Your task to perform on an android device: change the clock display to digital Image 0: 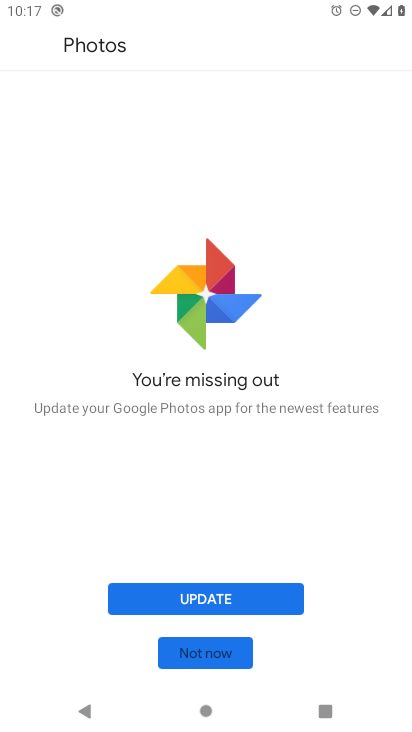
Step 0: press home button
Your task to perform on an android device: change the clock display to digital Image 1: 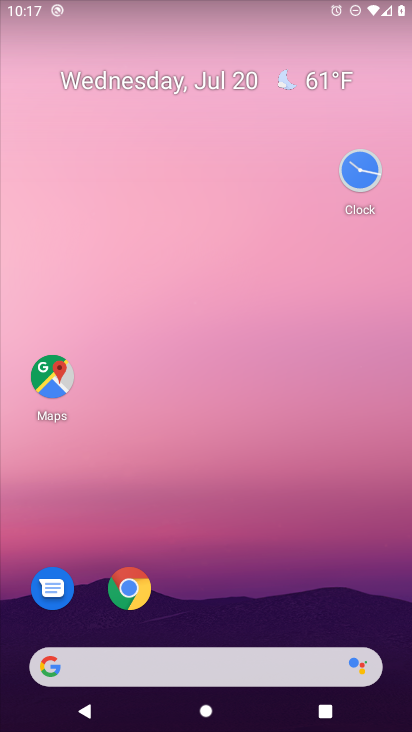
Step 1: drag from (34, 685) to (188, 154)
Your task to perform on an android device: change the clock display to digital Image 2: 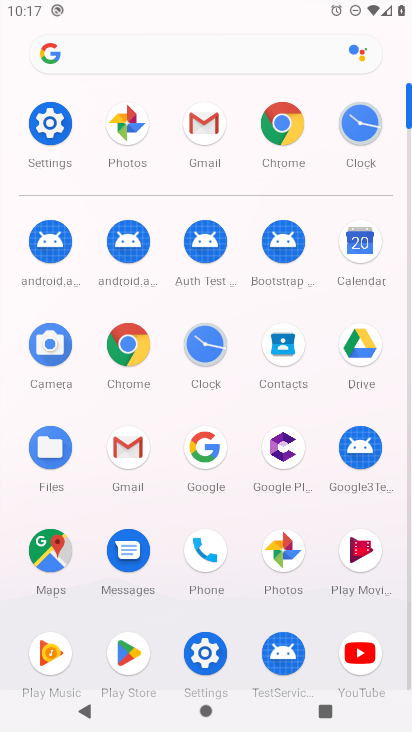
Step 2: click (369, 129)
Your task to perform on an android device: change the clock display to digital Image 3: 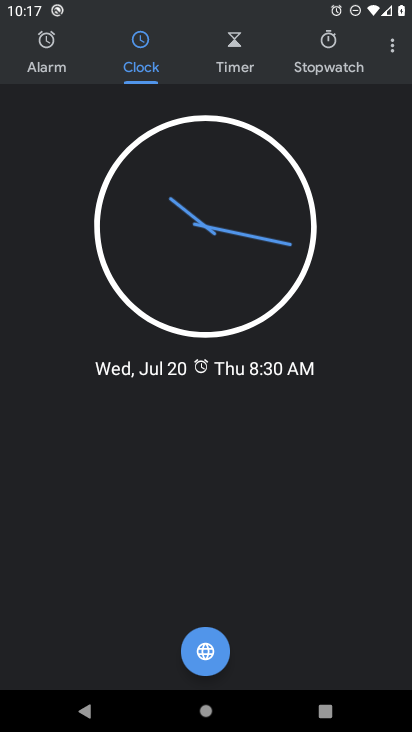
Step 3: click (389, 50)
Your task to perform on an android device: change the clock display to digital Image 4: 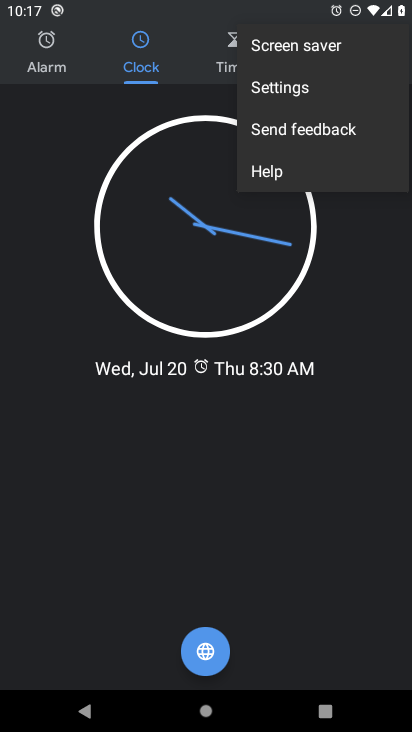
Step 4: click (251, 91)
Your task to perform on an android device: change the clock display to digital Image 5: 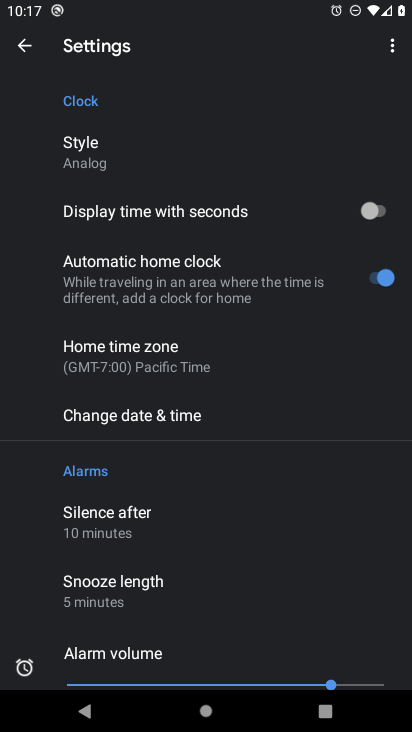
Step 5: click (97, 156)
Your task to perform on an android device: change the clock display to digital Image 6: 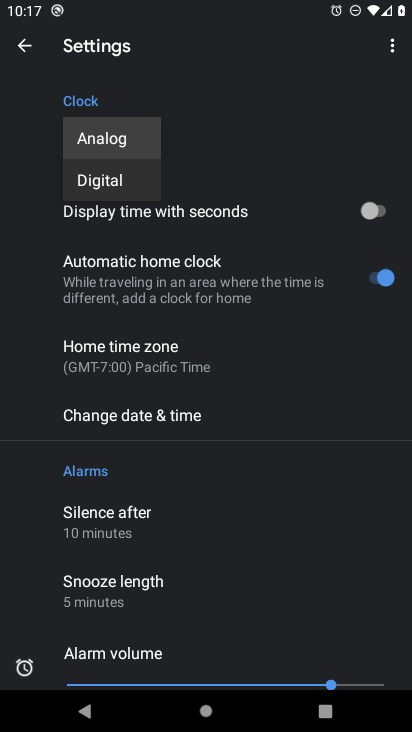
Step 6: click (96, 181)
Your task to perform on an android device: change the clock display to digital Image 7: 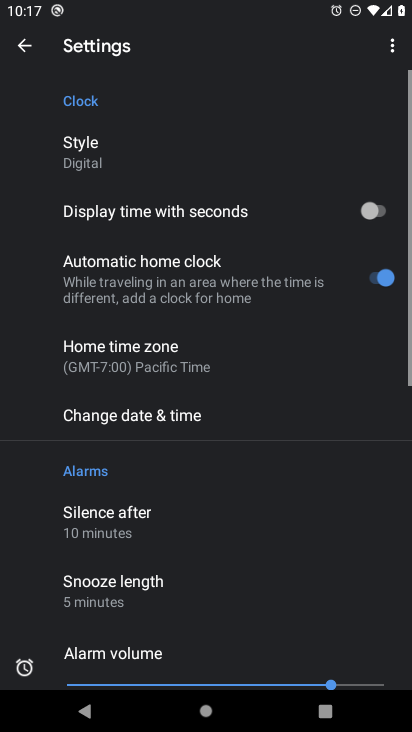
Step 7: task complete